Your task to perform on an android device: Open notification settings Image 0: 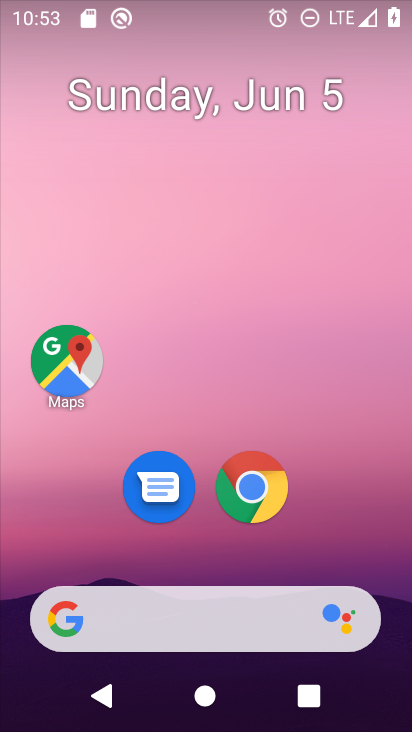
Step 0: drag from (298, 540) to (311, 247)
Your task to perform on an android device: Open notification settings Image 1: 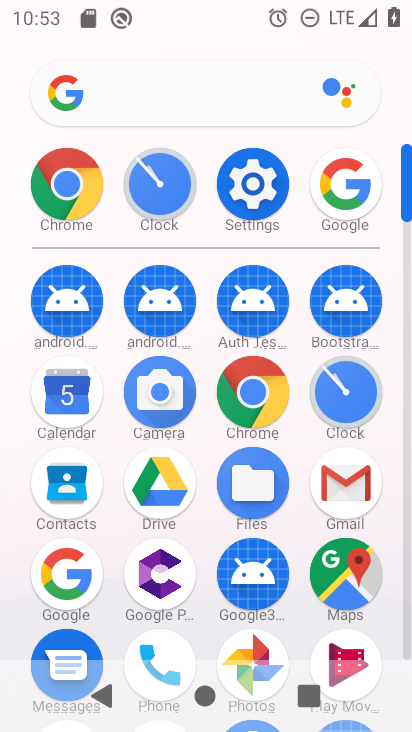
Step 1: click (248, 179)
Your task to perform on an android device: Open notification settings Image 2: 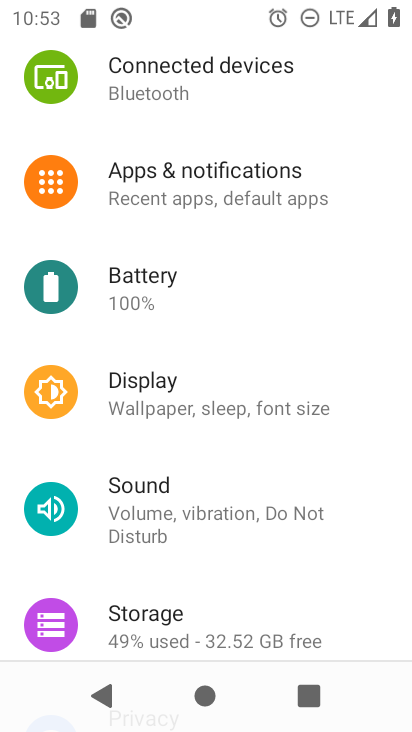
Step 2: drag from (179, 106) to (193, 386)
Your task to perform on an android device: Open notification settings Image 3: 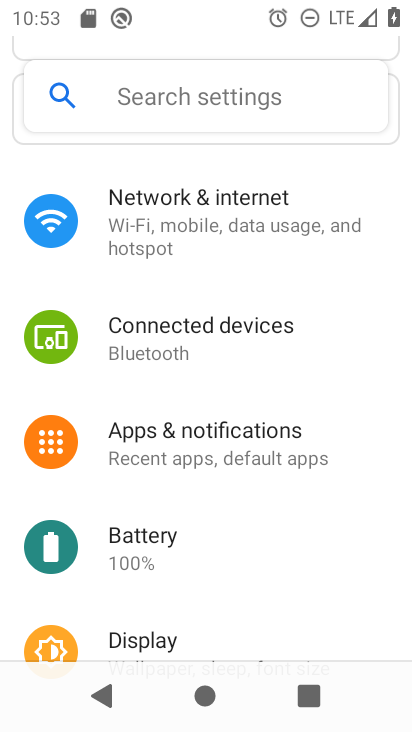
Step 3: click (224, 435)
Your task to perform on an android device: Open notification settings Image 4: 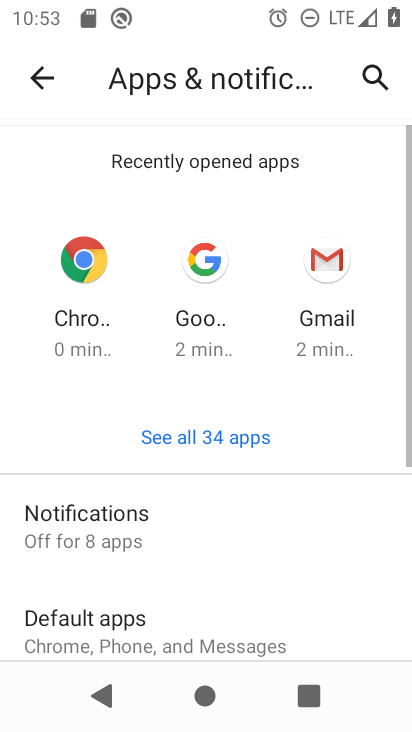
Step 4: click (144, 516)
Your task to perform on an android device: Open notification settings Image 5: 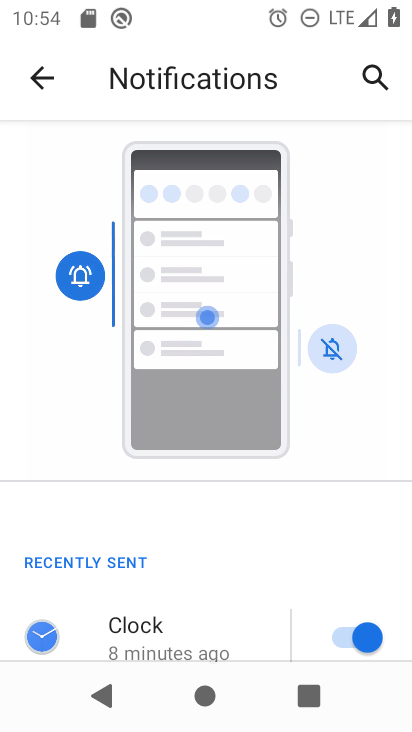
Step 5: task complete